Your task to perform on an android device: see creations saved in the google photos Image 0: 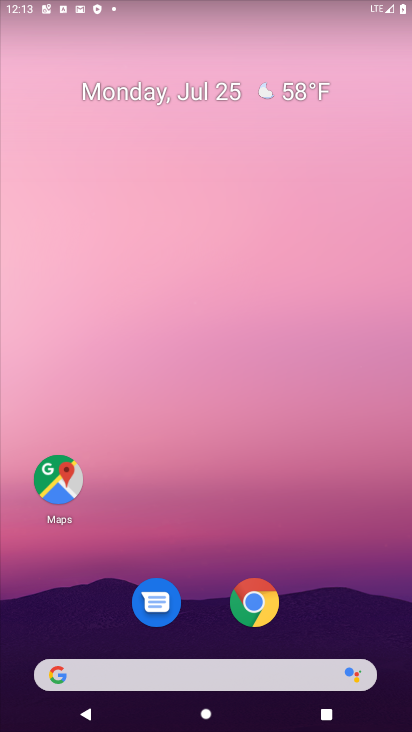
Step 0: drag from (201, 556) to (188, 104)
Your task to perform on an android device: see creations saved in the google photos Image 1: 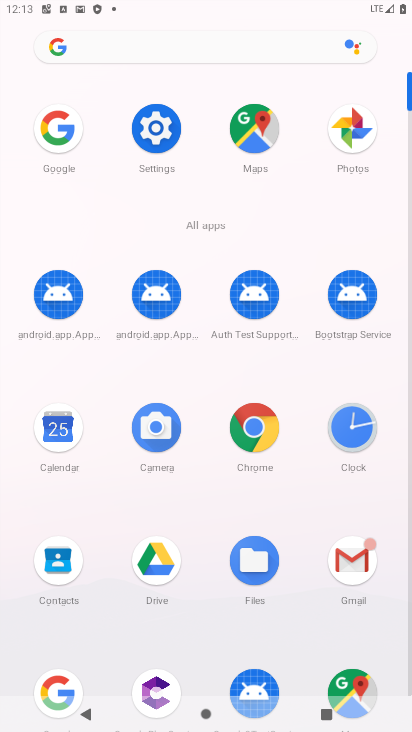
Step 1: click (346, 118)
Your task to perform on an android device: see creations saved in the google photos Image 2: 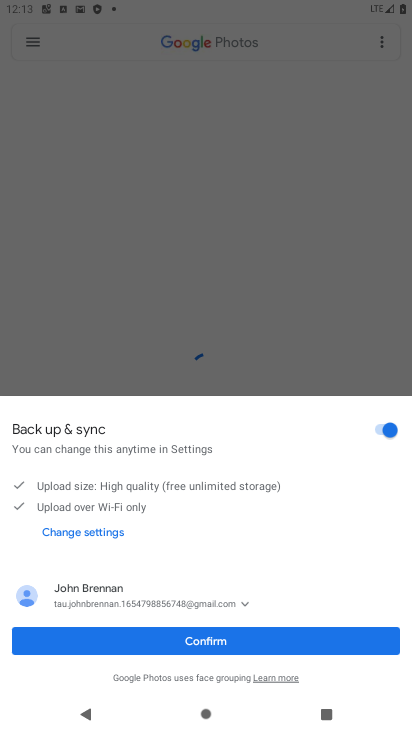
Step 2: click (245, 635)
Your task to perform on an android device: see creations saved in the google photos Image 3: 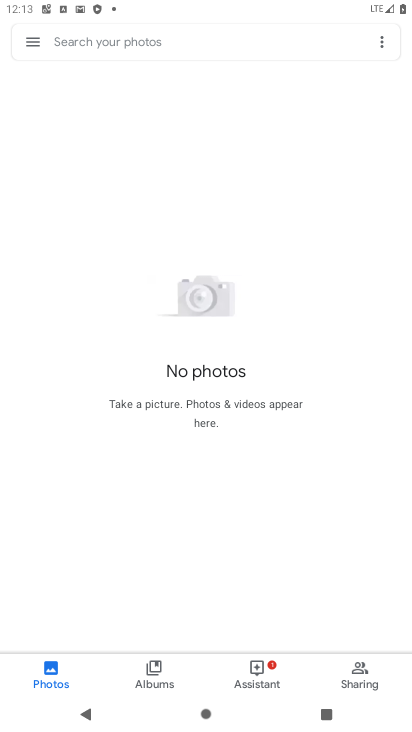
Step 3: click (144, 42)
Your task to perform on an android device: see creations saved in the google photos Image 4: 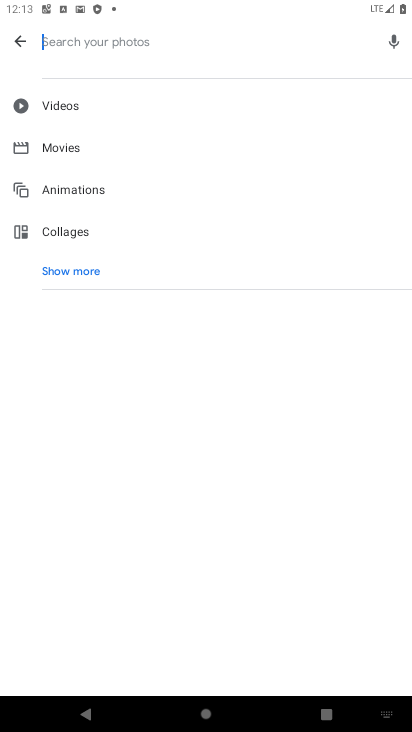
Step 4: click (58, 270)
Your task to perform on an android device: see creations saved in the google photos Image 5: 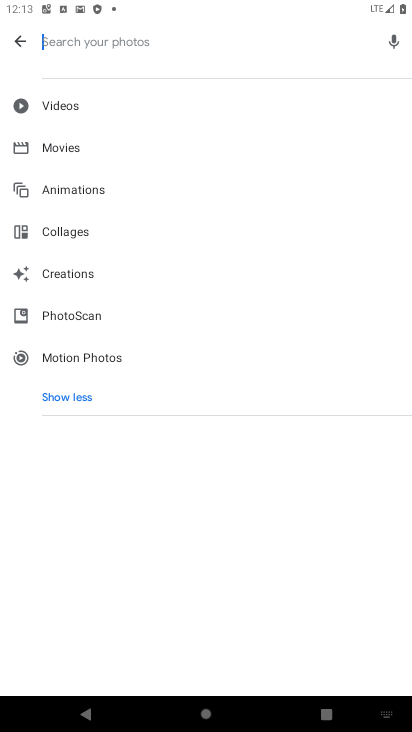
Step 5: click (117, 275)
Your task to perform on an android device: see creations saved in the google photos Image 6: 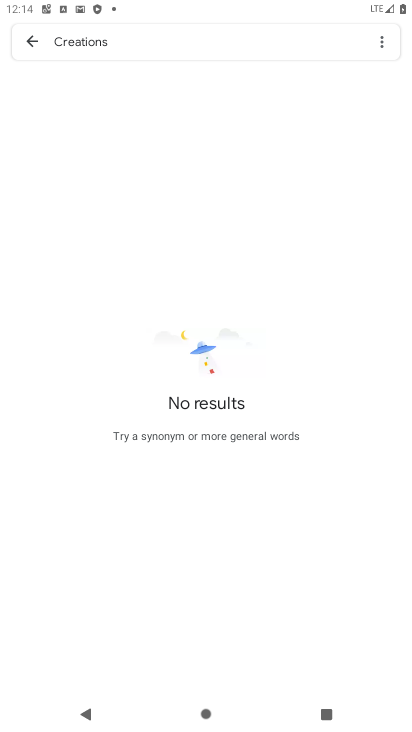
Step 6: task complete